Your task to perform on an android device: turn on airplane mode Image 0: 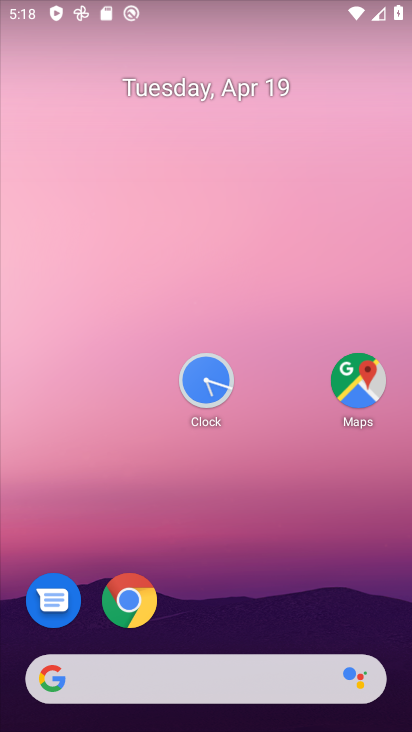
Step 0: drag from (257, 416) to (216, 158)
Your task to perform on an android device: turn on airplane mode Image 1: 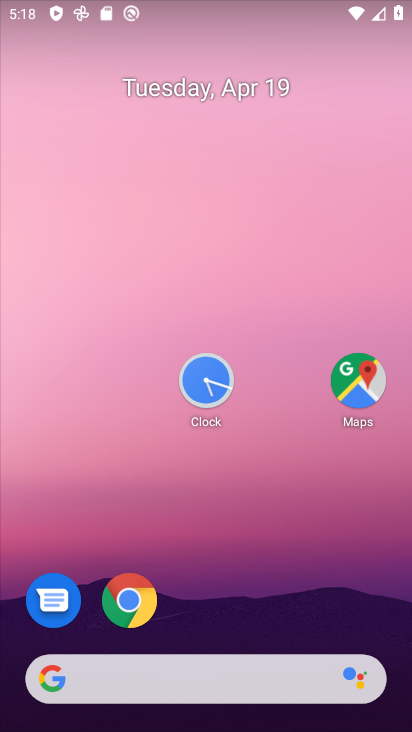
Step 1: drag from (268, 688) to (167, 238)
Your task to perform on an android device: turn on airplane mode Image 2: 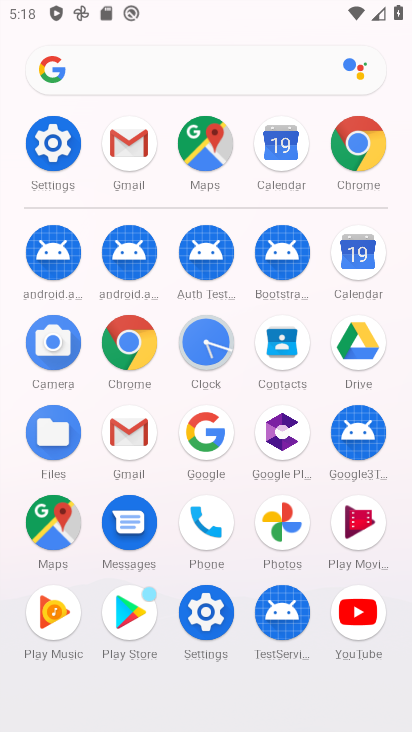
Step 2: click (51, 155)
Your task to perform on an android device: turn on airplane mode Image 3: 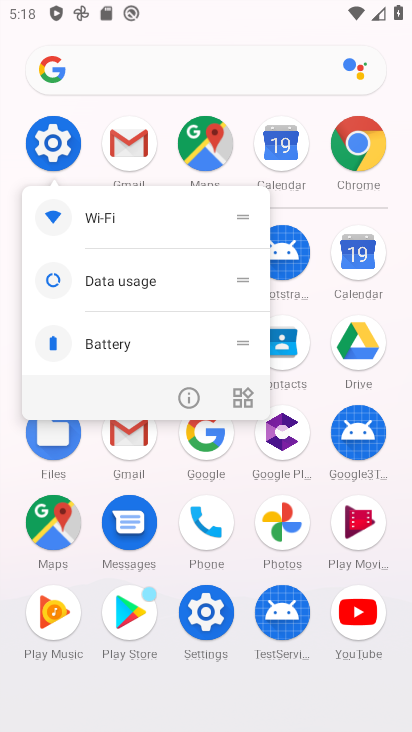
Step 3: click (50, 154)
Your task to perform on an android device: turn on airplane mode Image 4: 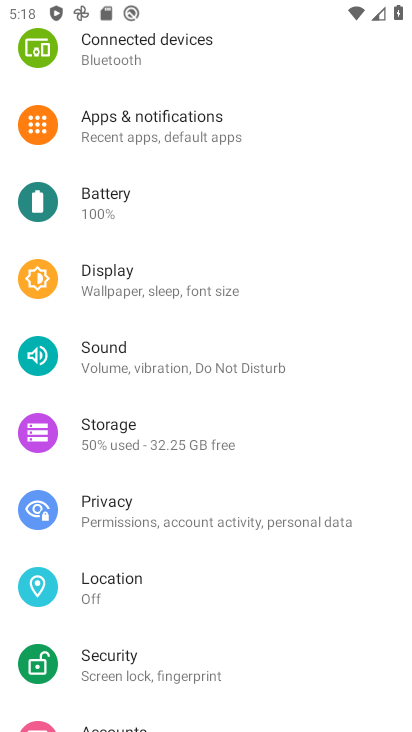
Step 4: drag from (161, 215) to (240, 568)
Your task to perform on an android device: turn on airplane mode Image 5: 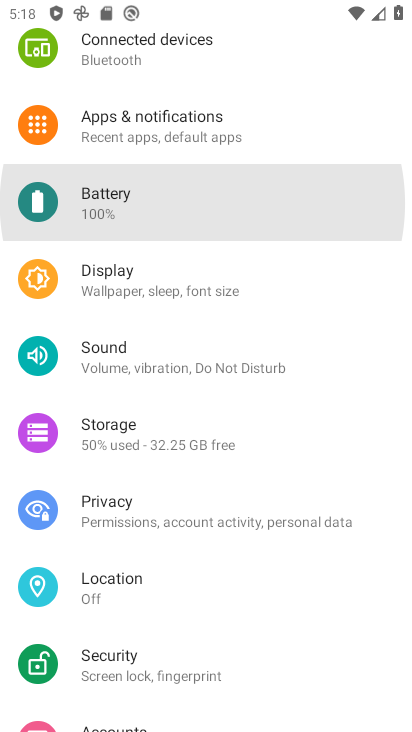
Step 5: drag from (171, 165) to (235, 584)
Your task to perform on an android device: turn on airplane mode Image 6: 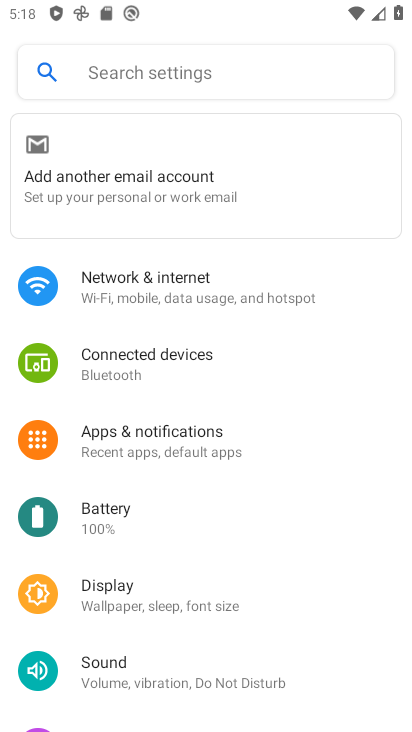
Step 6: click (158, 294)
Your task to perform on an android device: turn on airplane mode Image 7: 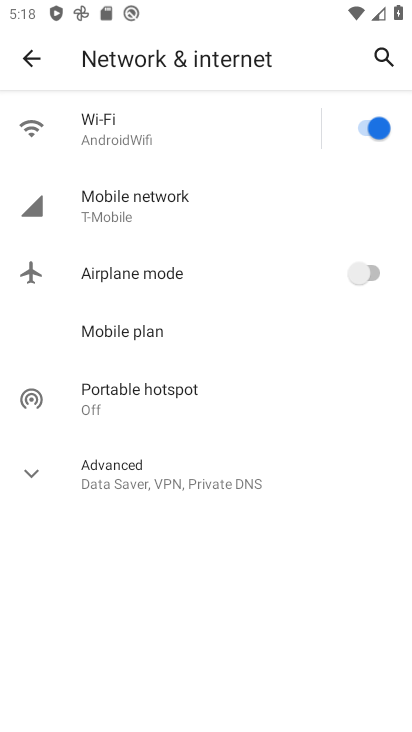
Step 7: click (352, 275)
Your task to perform on an android device: turn on airplane mode Image 8: 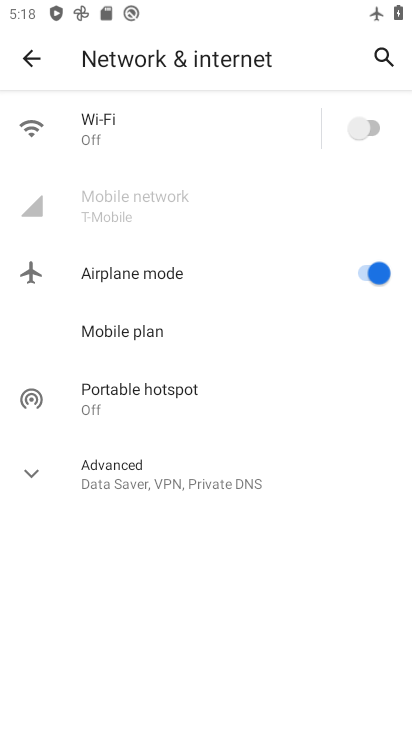
Step 8: task complete